Your task to perform on an android device: What is the capital of Spain? Image 0: 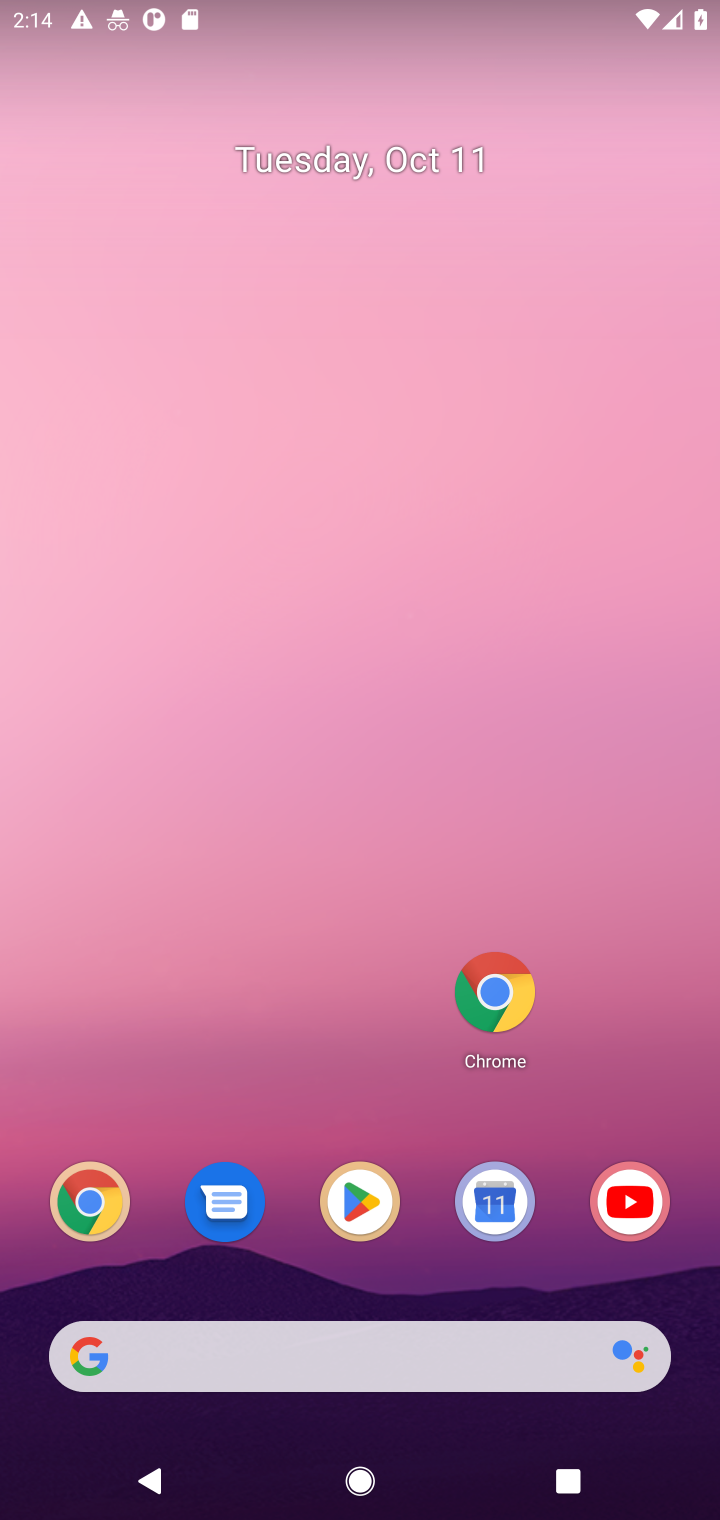
Step 0: click (498, 985)
Your task to perform on an android device: What is the capital of Spain? Image 1: 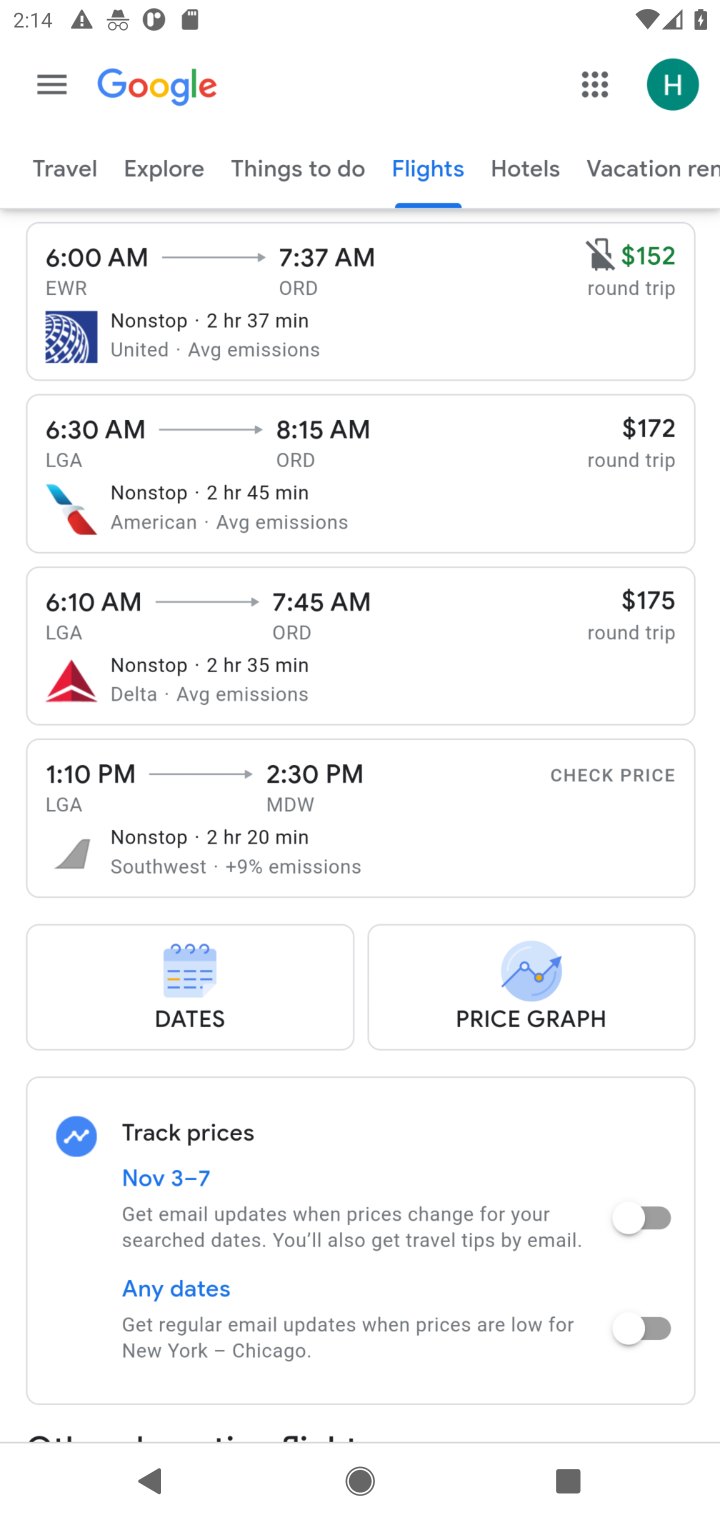
Step 1: click (498, 998)
Your task to perform on an android device: What is the capital of Spain? Image 2: 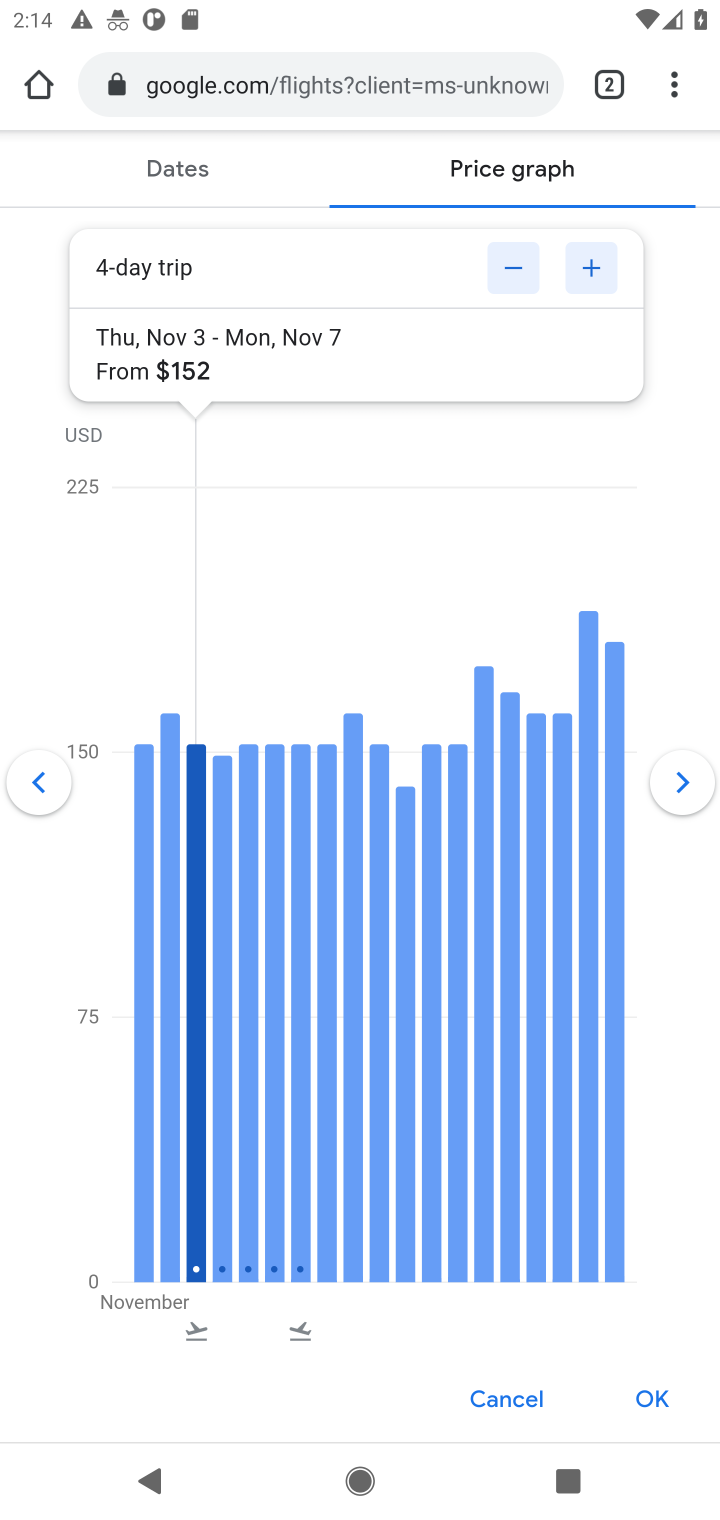
Step 2: click (151, 160)
Your task to perform on an android device: What is the capital of Spain? Image 3: 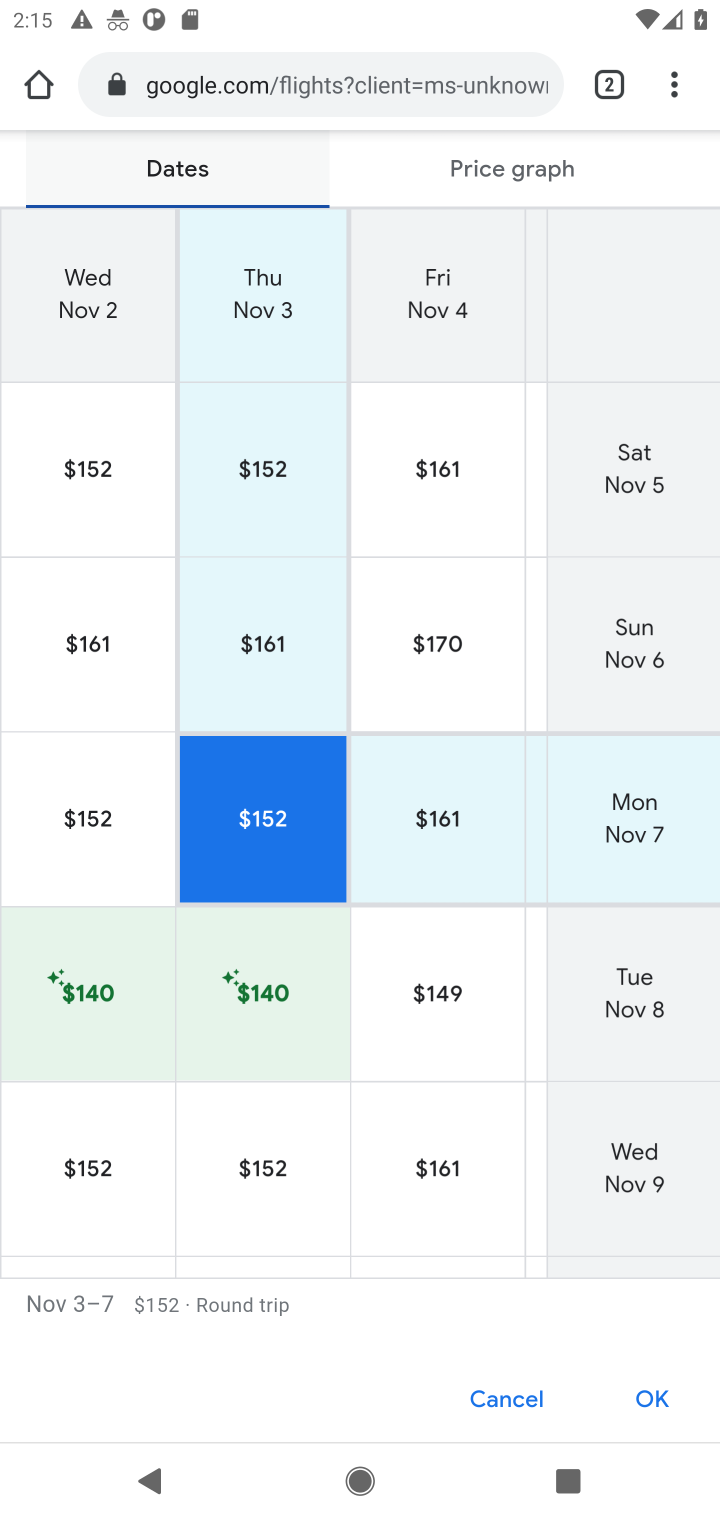
Step 3: click (345, 85)
Your task to perform on an android device: What is the capital of Spain? Image 4: 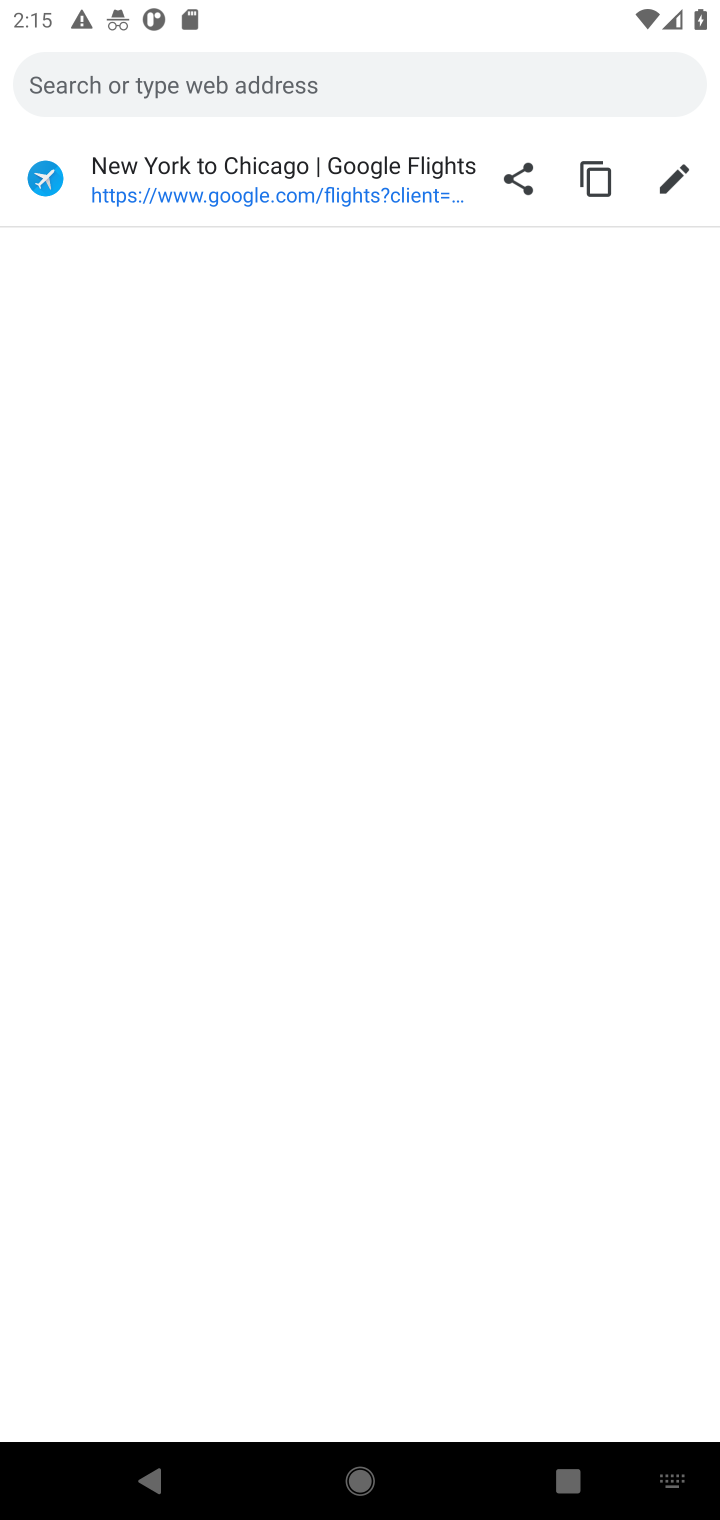
Step 4: type "capital of Spain"
Your task to perform on an android device: What is the capital of Spain? Image 5: 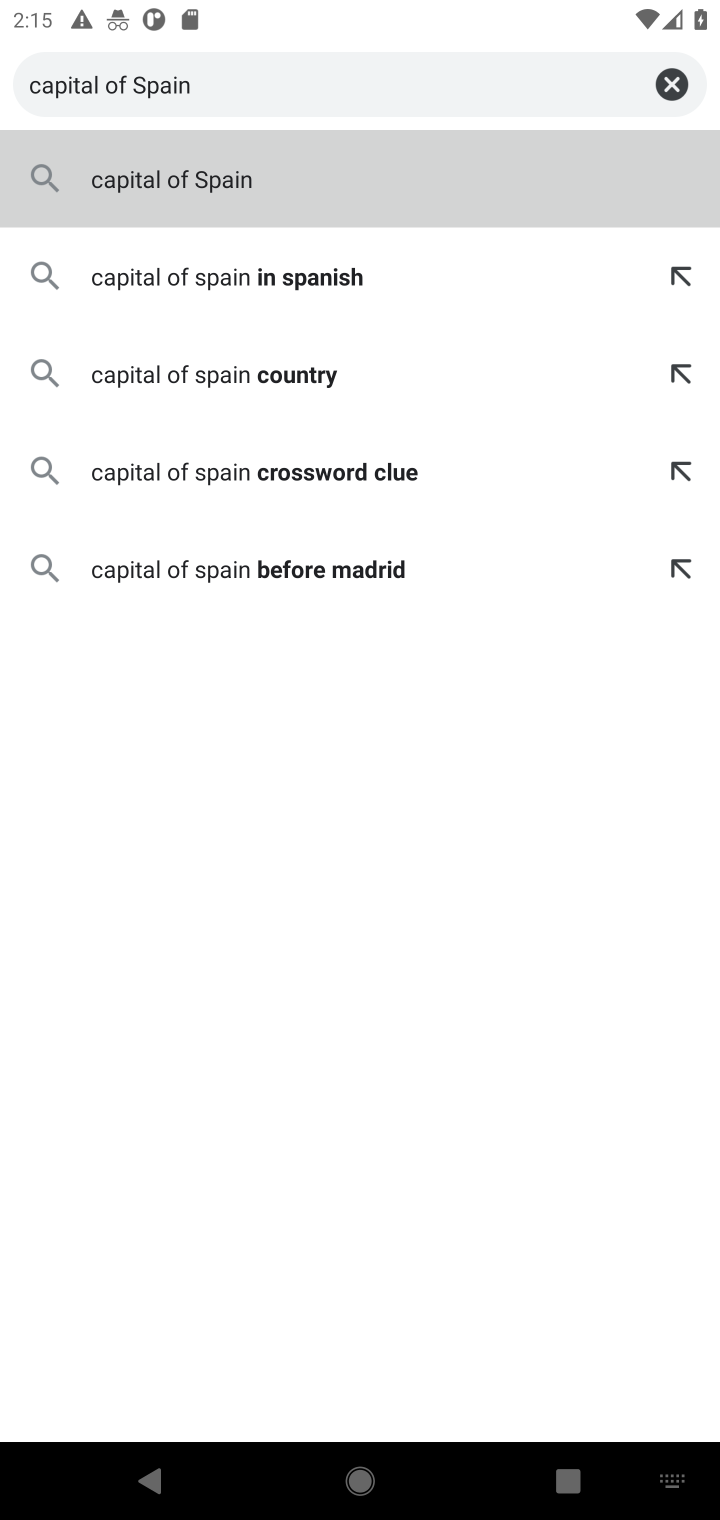
Step 5: press enter
Your task to perform on an android device: What is the capital of Spain? Image 6: 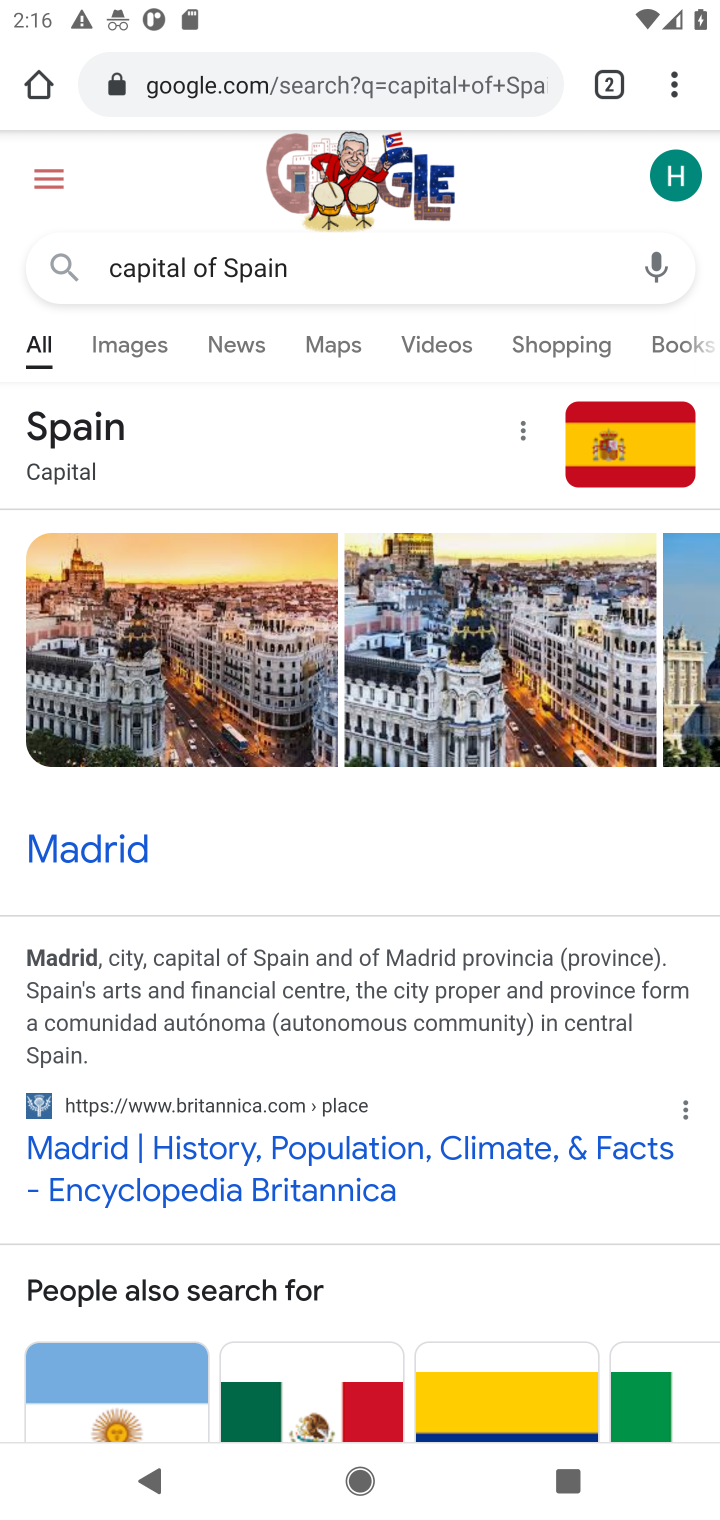
Step 6: task complete